Your task to perform on an android device: Turn on the flashlight Image 0: 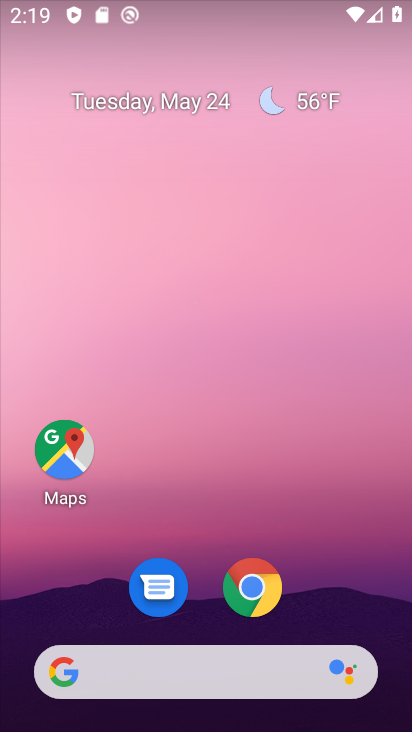
Step 0: drag from (245, 10) to (291, 551)
Your task to perform on an android device: Turn on the flashlight Image 1: 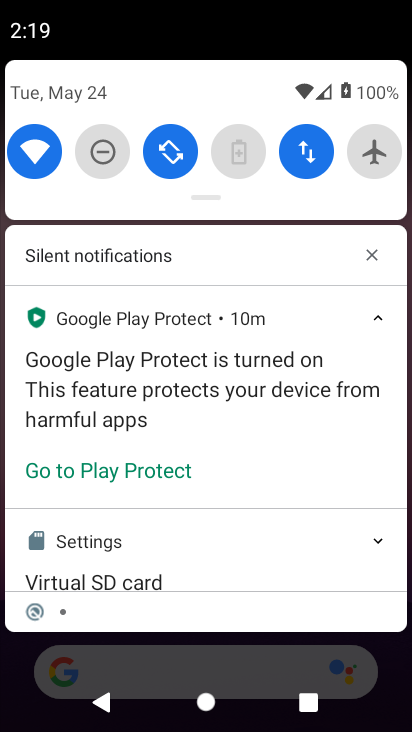
Step 1: drag from (256, 117) to (328, 662)
Your task to perform on an android device: Turn on the flashlight Image 2: 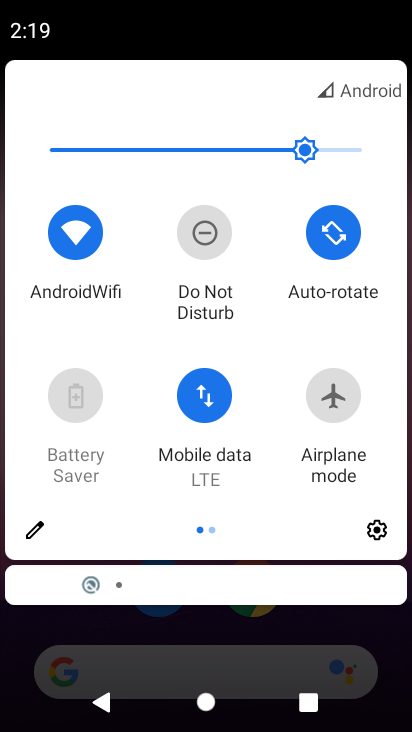
Step 2: click (376, 540)
Your task to perform on an android device: Turn on the flashlight Image 3: 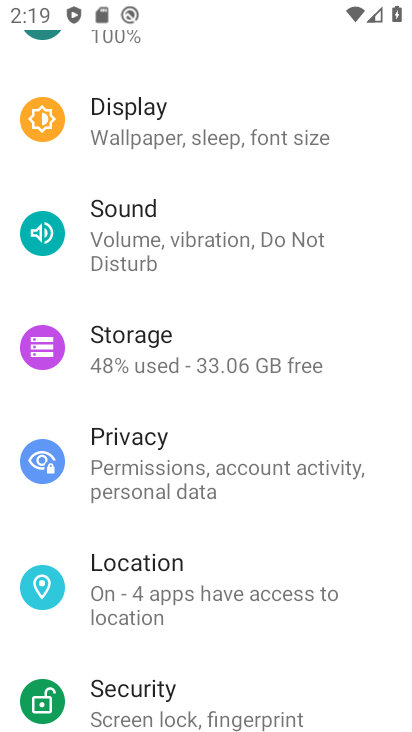
Step 3: task complete